Your task to perform on an android device: turn off notifications settings in the gmail app Image 0: 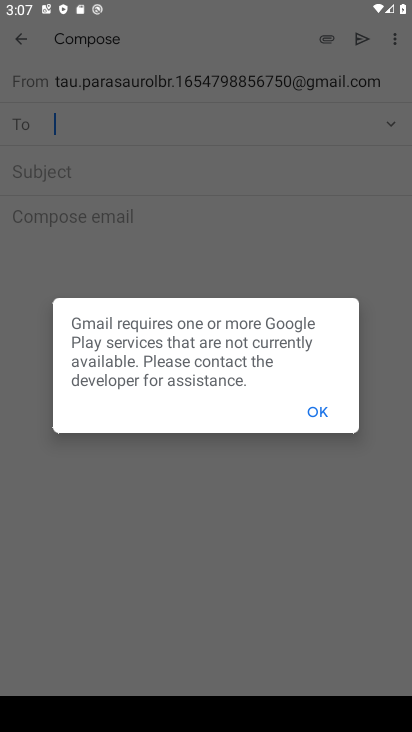
Step 0: press home button
Your task to perform on an android device: turn off notifications settings in the gmail app Image 1: 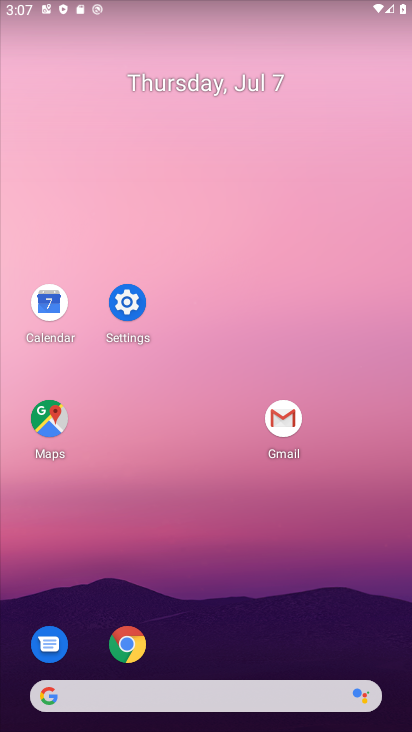
Step 1: click (278, 420)
Your task to perform on an android device: turn off notifications settings in the gmail app Image 2: 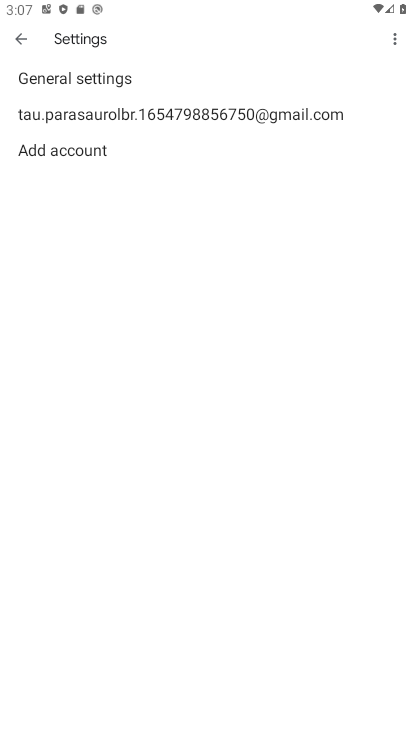
Step 2: click (52, 108)
Your task to perform on an android device: turn off notifications settings in the gmail app Image 3: 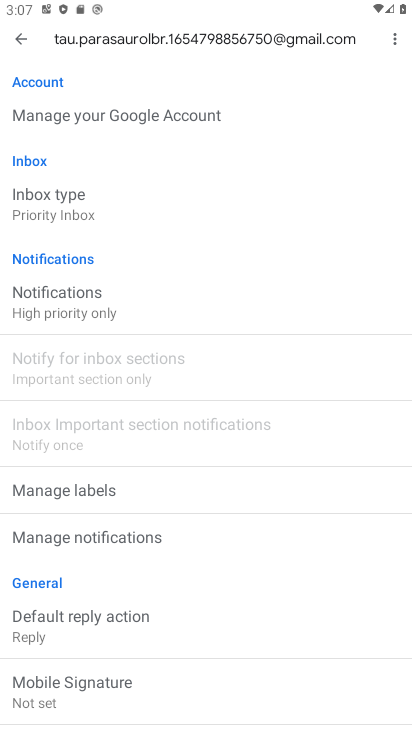
Step 3: click (44, 291)
Your task to perform on an android device: turn off notifications settings in the gmail app Image 4: 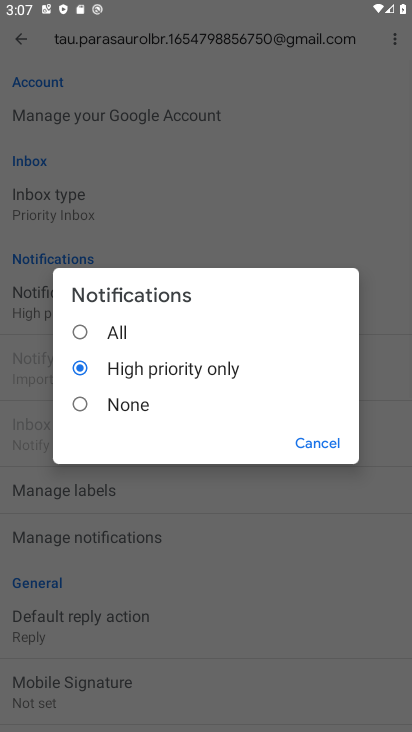
Step 4: click (66, 402)
Your task to perform on an android device: turn off notifications settings in the gmail app Image 5: 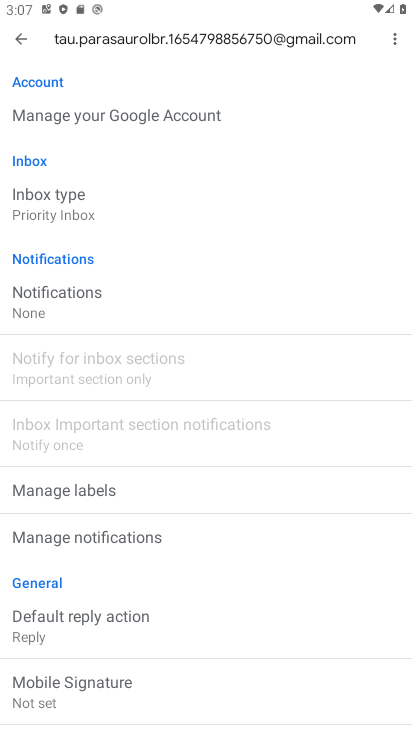
Step 5: task complete